Your task to perform on an android device: empty trash in the gmail app Image 0: 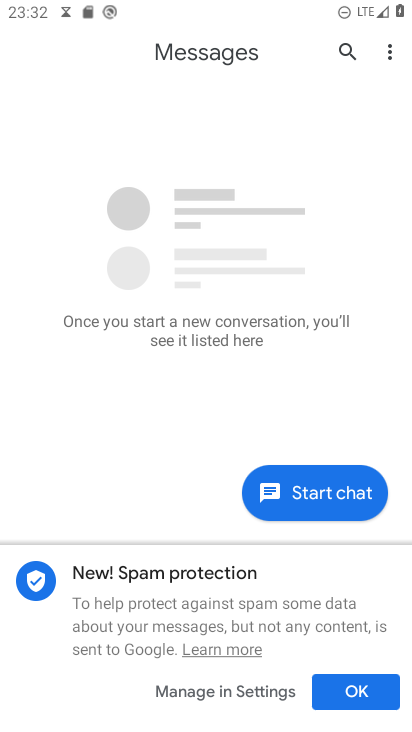
Step 0: press home button
Your task to perform on an android device: empty trash in the gmail app Image 1: 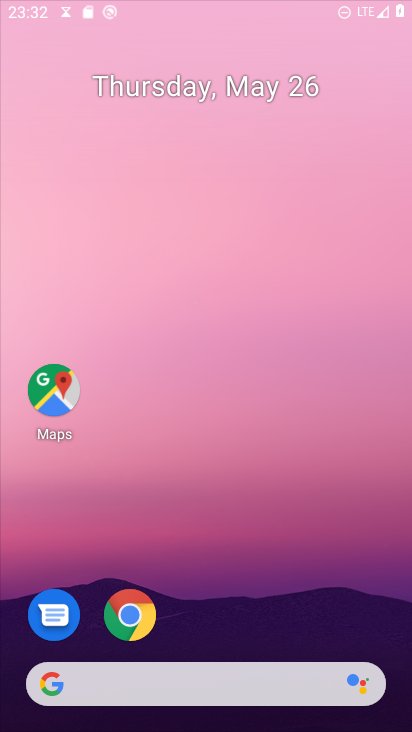
Step 1: drag from (255, 610) to (241, 239)
Your task to perform on an android device: empty trash in the gmail app Image 2: 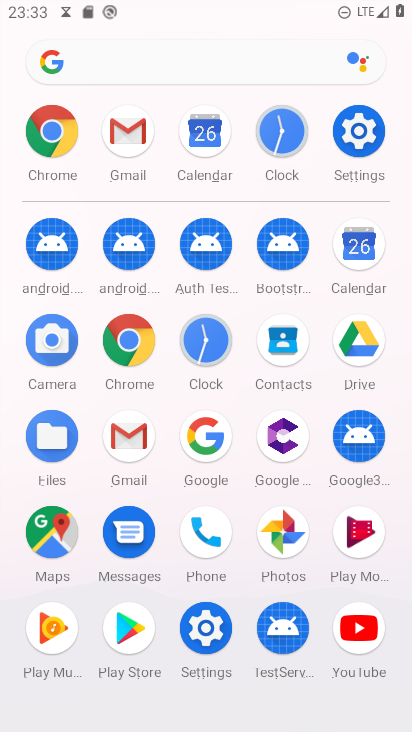
Step 2: click (125, 447)
Your task to perform on an android device: empty trash in the gmail app Image 3: 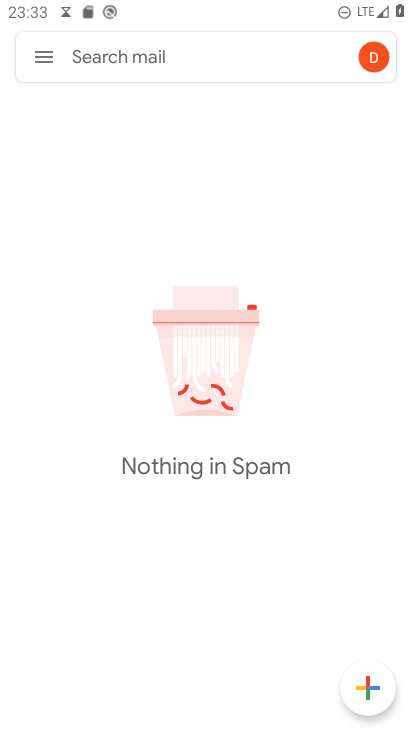
Step 3: click (42, 50)
Your task to perform on an android device: empty trash in the gmail app Image 4: 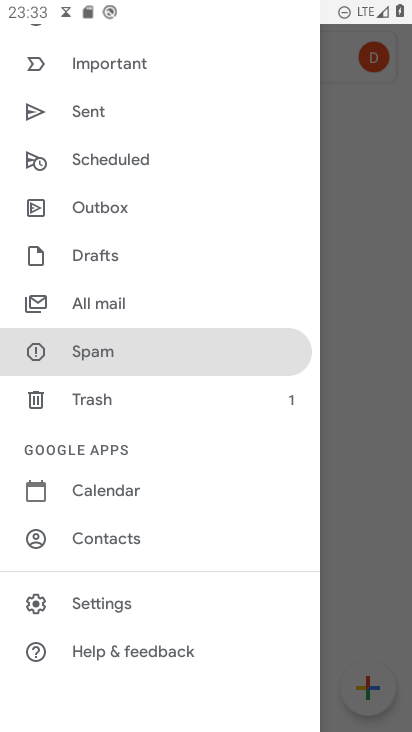
Step 4: click (95, 400)
Your task to perform on an android device: empty trash in the gmail app Image 5: 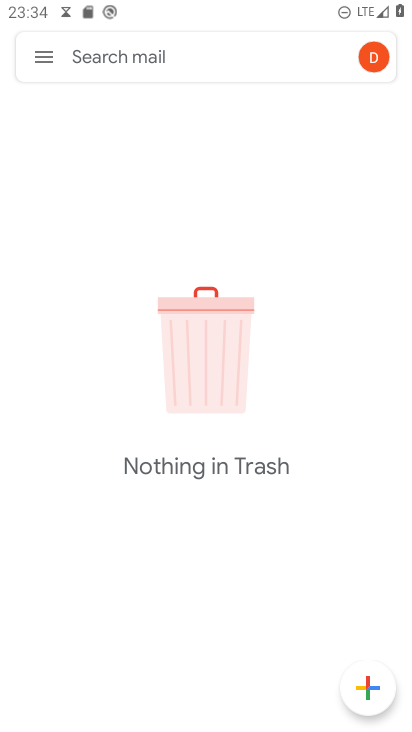
Step 5: task complete